Your task to perform on an android device: Add "macbook pro 13 inch" to the cart on costco.com Image 0: 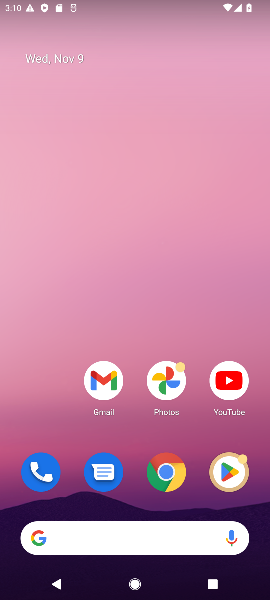
Step 0: click (134, 528)
Your task to perform on an android device: Add "macbook pro 13 inch" to the cart on costco.com Image 1: 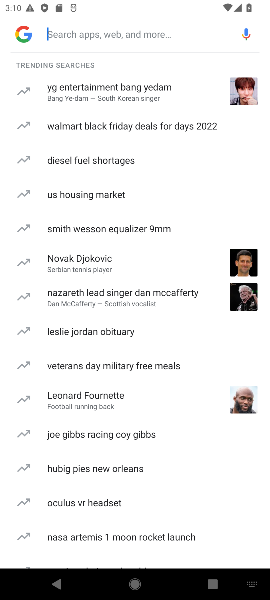
Step 1: type "costco"
Your task to perform on an android device: Add "macbook pro 13 inch" to the cart on costco.com Image 2: 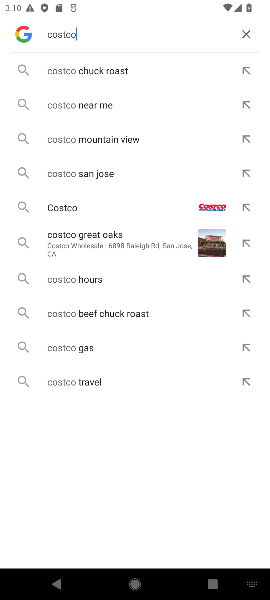
Step 2: click (65, 210)
Your task to perform on an android device: Add "macbook pro 13 inch" to the cart on costco.com Image 3: 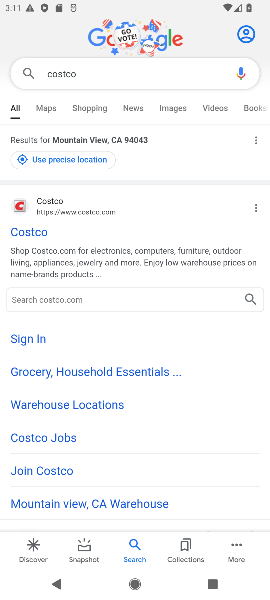
Step 3: click (43, 199)
Your task to perform on an android device: Add "macbook pro 13 inch" to the cart on costco.com Image 4: 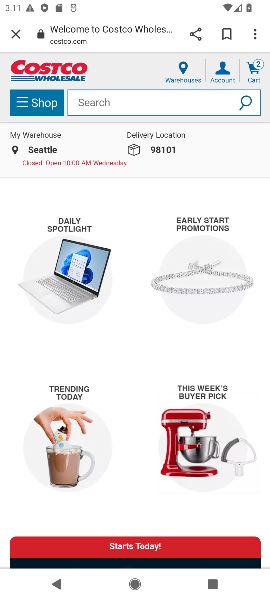
Step 4: click (96, 100)
Your task to perform on an android device: Add "macbook pro 13 inch" to the cart on costco.com Image 5: 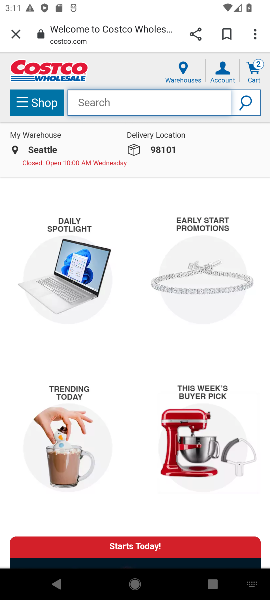
Step 5: type "macbook pro 13 inch"
Your task to perform on an android device: Add "macbook pro 13 inch" to the cart on costco.com Image 6: 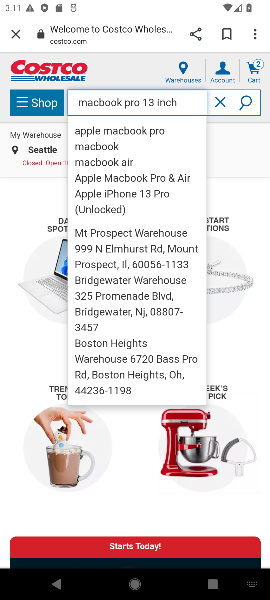
Step 6: click (243, 100)
Your task to perform on an android device: Add "macbook pro 13 inch" to the cart on costco.com Image 7: 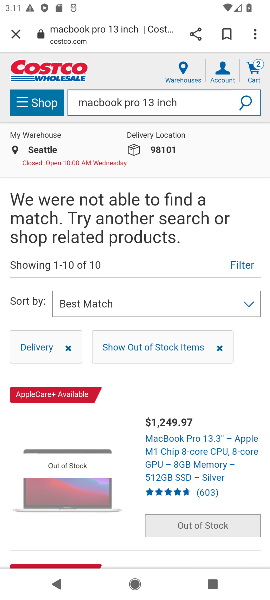
Step 7: drag from (127, 459) to (123, 317)
Your task to perform on an android device: Add "macbook pro 13 inch" to the cart on costco.com Image 8: 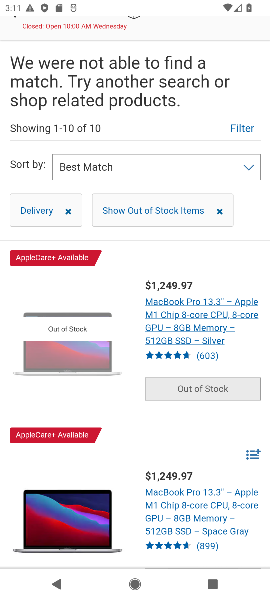
Step 8: drag from (164, 446) to (152, 289)
Your task to perform on an android device: Add "macbook pro 13 inch" to the cart on costco.com Image 9: 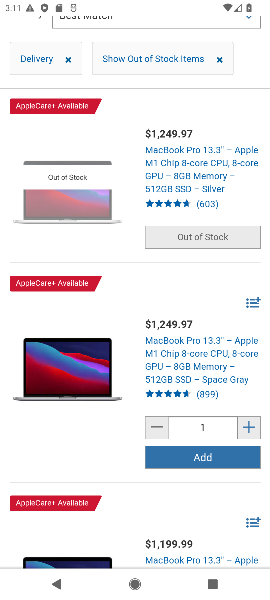
Step 9: click (204, 458)
Your task to perform on an android device: Add "macbook pro 13 inch" to the cart on costco.com Image 10: 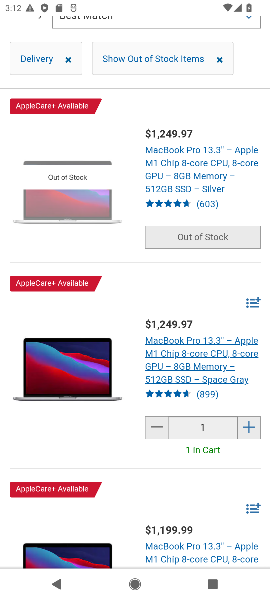
Step 10: task complete